Your task to perform on an android device: turn off wifi Image 0: 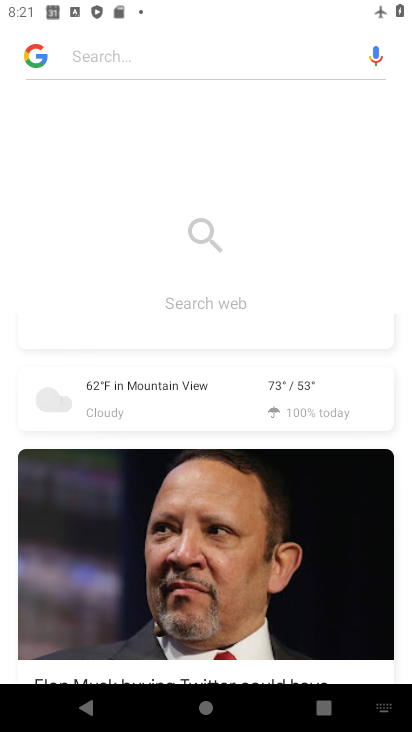
Step 0: press home button
Your task to perform on an android device: turn off wifi Image 1: 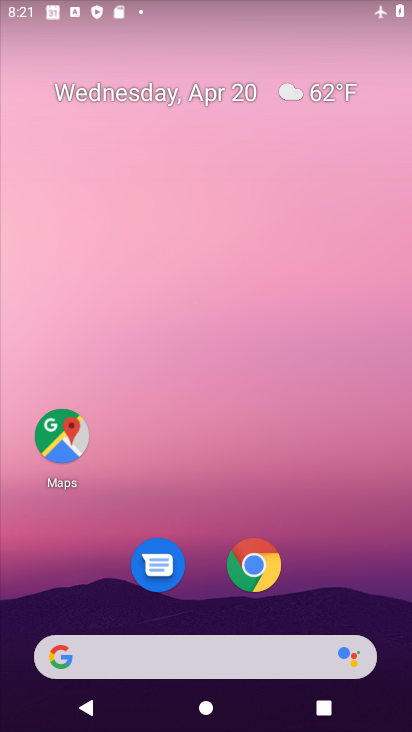
Step 1: drag from (337, 570) to (339, 91)
Your task to perform on an android device: turn off wifi Image 2: 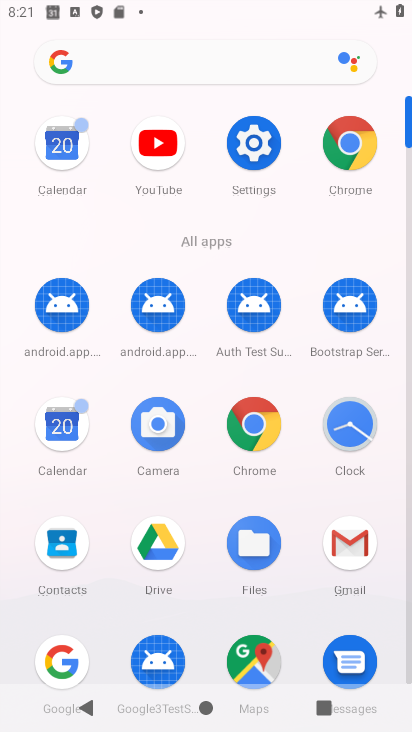
Step 2: click (275, 149)
Your task to perform on an android device: turn off wifi Image 3: 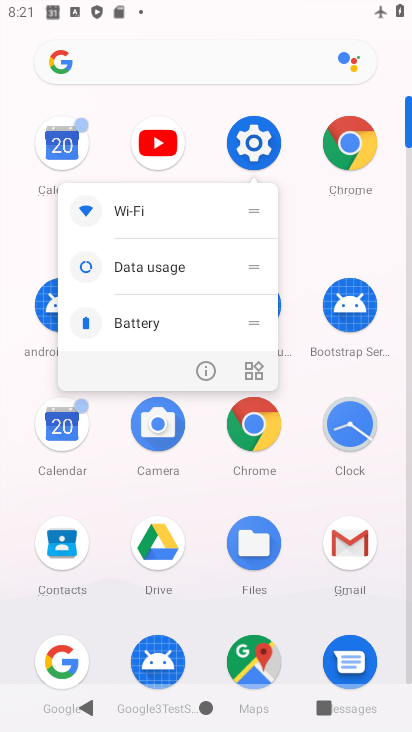
Step 3: click (252, 144)
Your task to perform on an android device: turn off wifi Image 4: 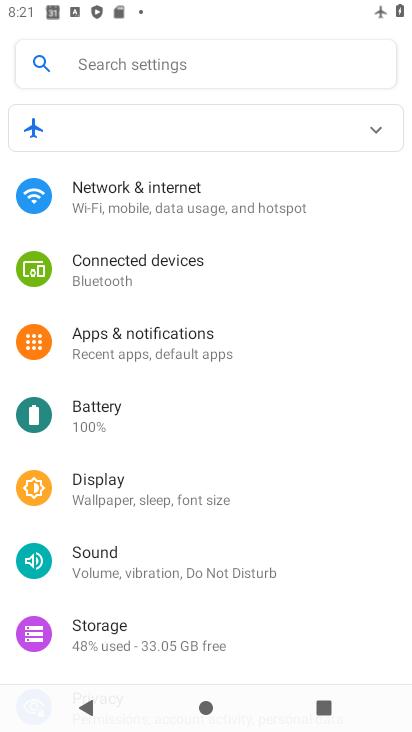
Step 4: click (105, 207)
Your task to perform on an android device: turn off wifi Image 5: 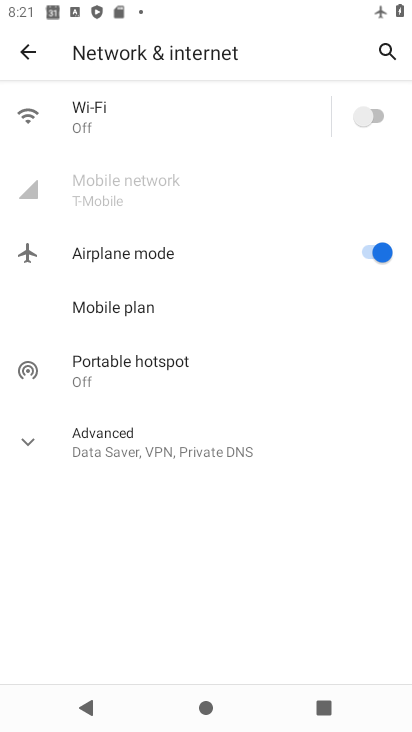
Step 5: task complete